Your task to perform on an android device: What's the weather going to be this weekend? Image 0: 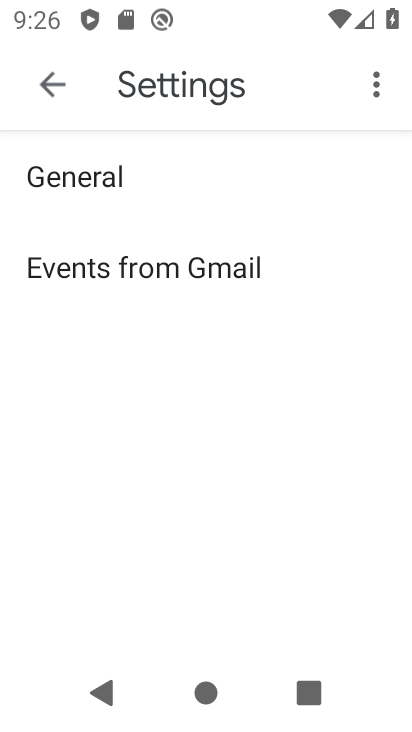
Step 0: press home button
Your task to perform on an android device: What's the weather going to be this weekend? Image 1: 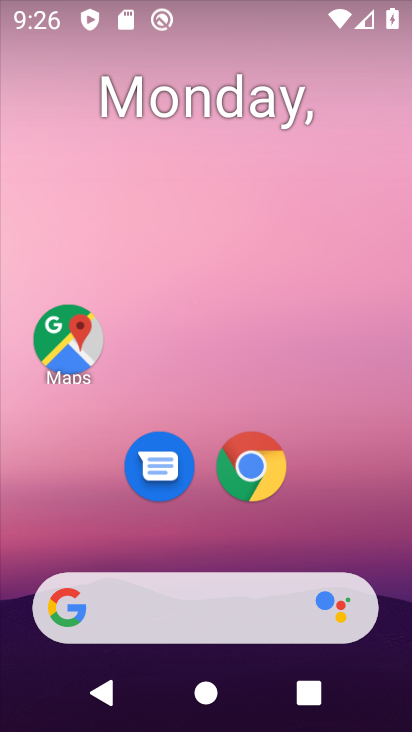
Step 1: click (264, 468)
Your task to perform on an android device: What's the weather going to be this weekend? Image 2: 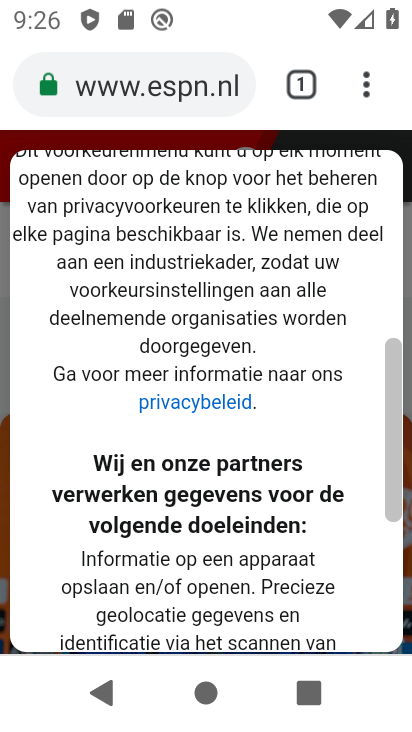
Step 2: click (145, 77)
Your task to perform on an android device: What's the weather going to be this weekend? Image 3: 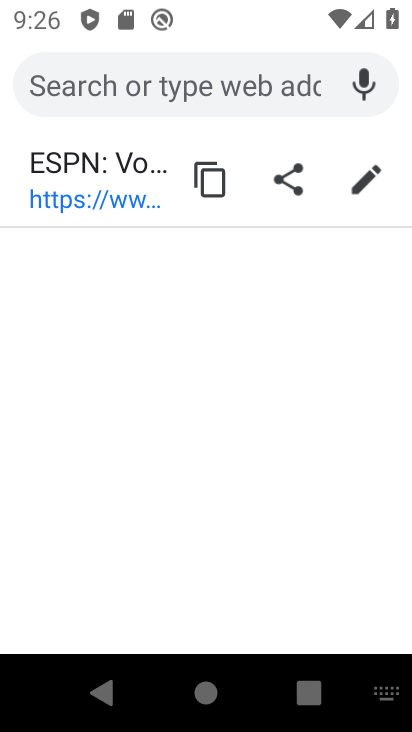
Step 3: type "What's the weather going to be this weekend?"
Your task to perform on an android device: What's the weather going to be this weekend? Image 4: 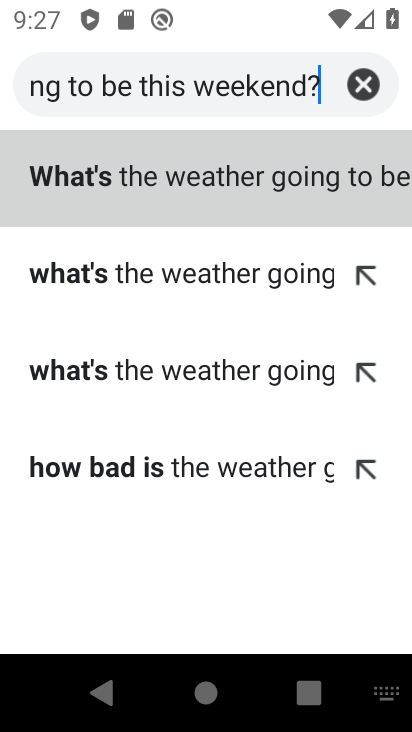
Step 4: click (85, 143)
Your task to perform on an android device: What's the weather going to be this weekend? Image 5: 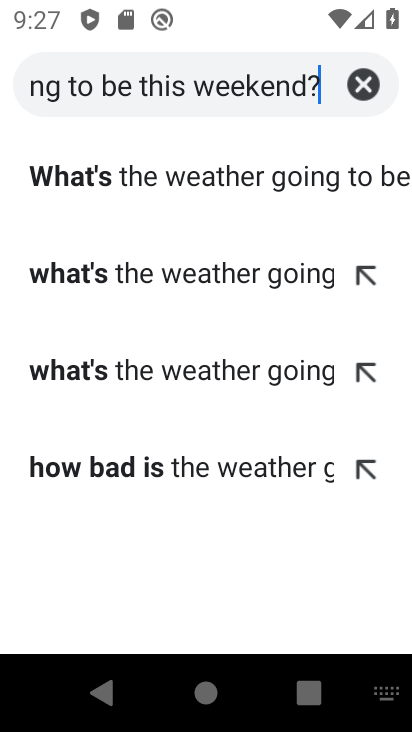
Step 5: click (349, 178)
Your task to perform on an android device: What's the weather going to be this weekend? Image 6: 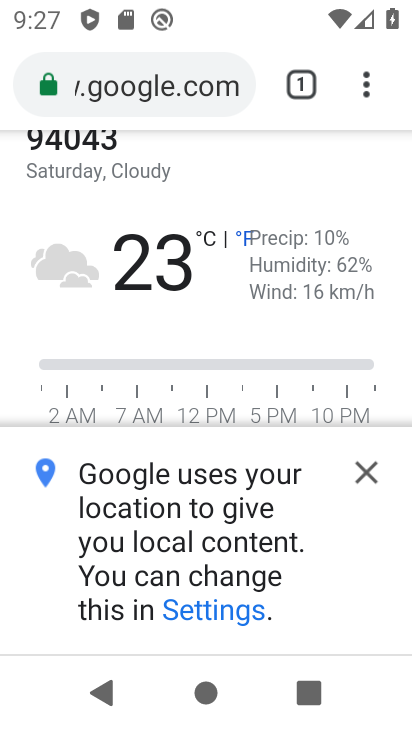
Step 6: task complete